Your task to perform on an android device: See recent photos Image 0: 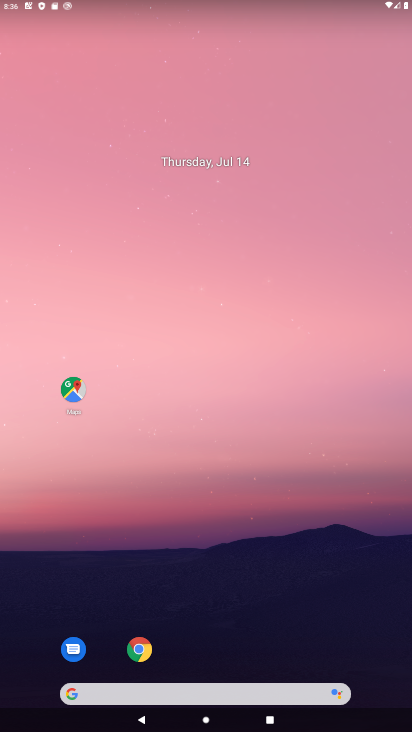
Step 0: drag from (170, 723) to (204, 59)
Your task to perform on an android device: See recent photos Image 1: 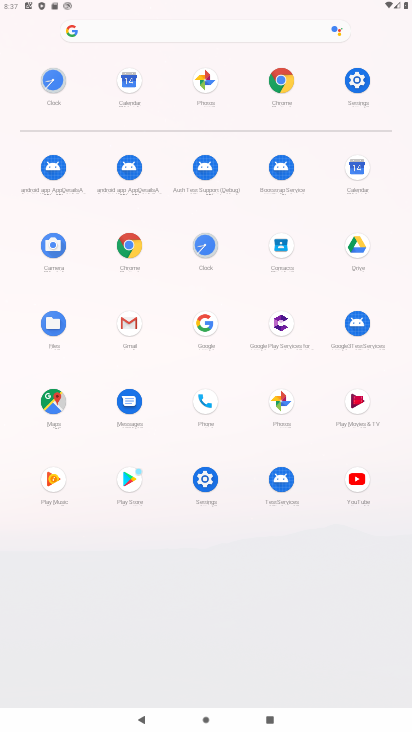
Step 1: click (280, 400)
Your task to perform on an android device: See recent photos Image 2: 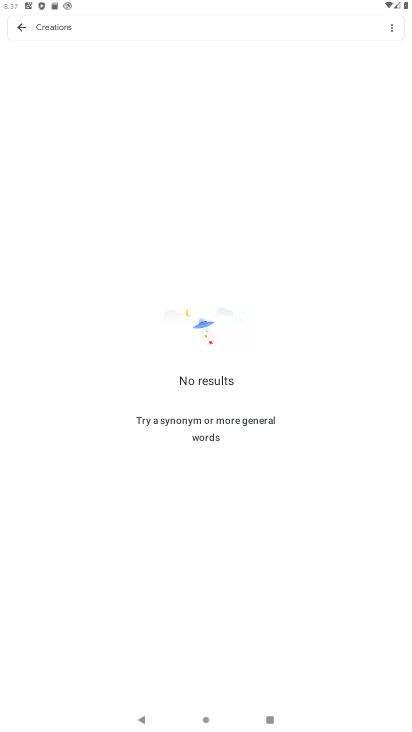
Step 2: click (25, 27)
Your task to perform on an android device: See recent photos Image 3: 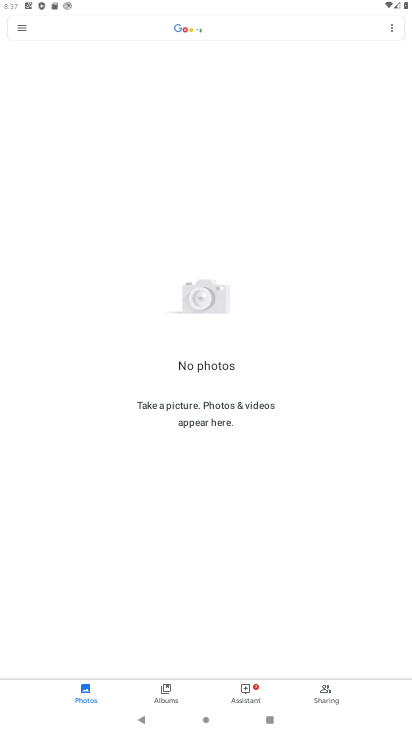
Step 3: click (167, 28)
Your task to perform on an android device: See recent photos Image 4: 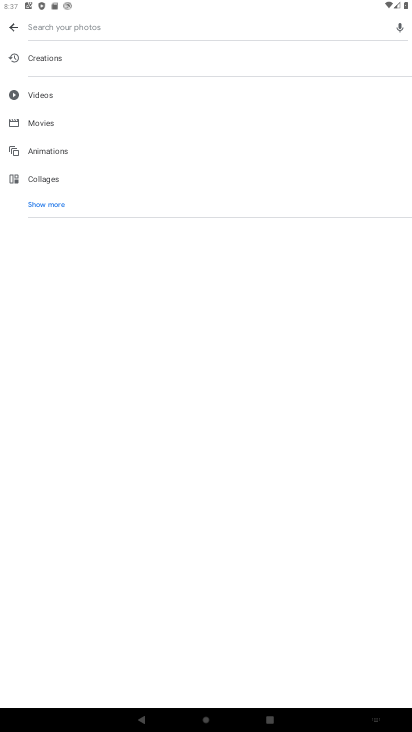
Step 4: task complete